Your task to perform on an android device: Open location settings Image 0: 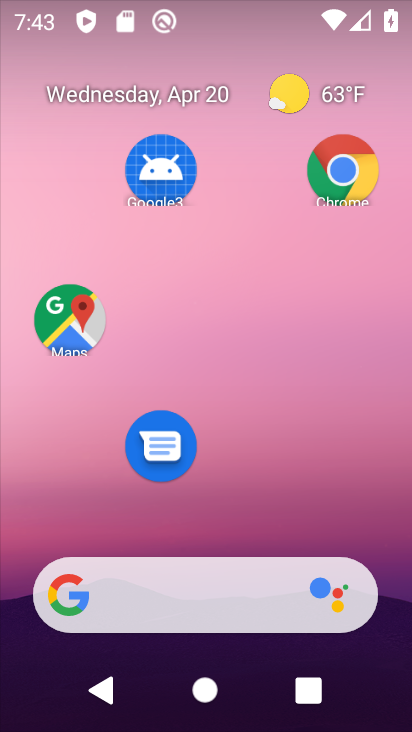
Step 0: drag from (238, 518) to (229, 5)
Your task to perform on an android device: Open location settings Image 1: 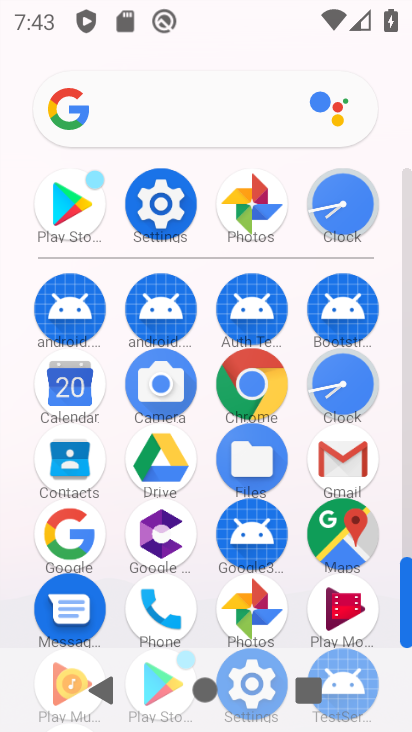
Step 1: click (156, 207)
Your task to perform on an android device: Open location settings Image 2: 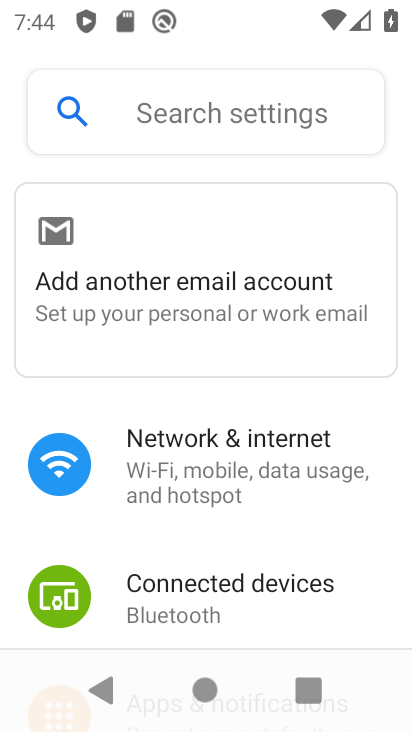
Step 2: drag from (161, 560) to (106, 255)
Your task to perform on an android device: Open location settings Image 3: 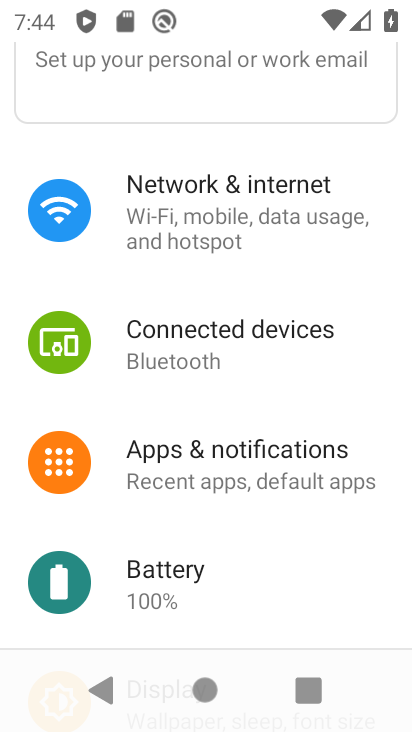
Step 3: drag from (237, 554) to (217, 151)
Your task to perform on an android device: Open location settings Image 4: 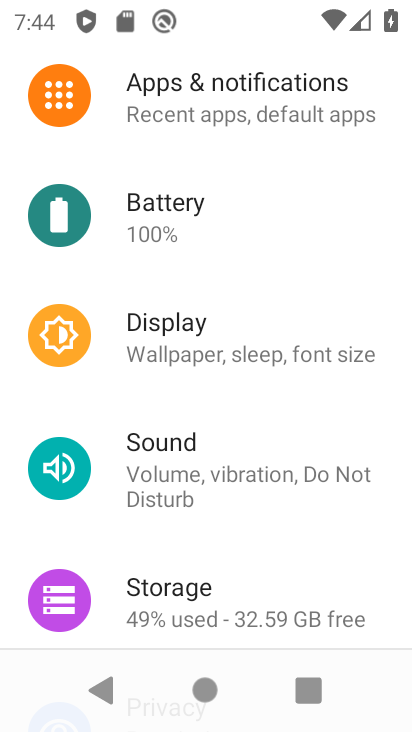
Step 4: drag from (255, 562) to (231, 109)
Your task to perform on an android device: Open location settings Image 5: 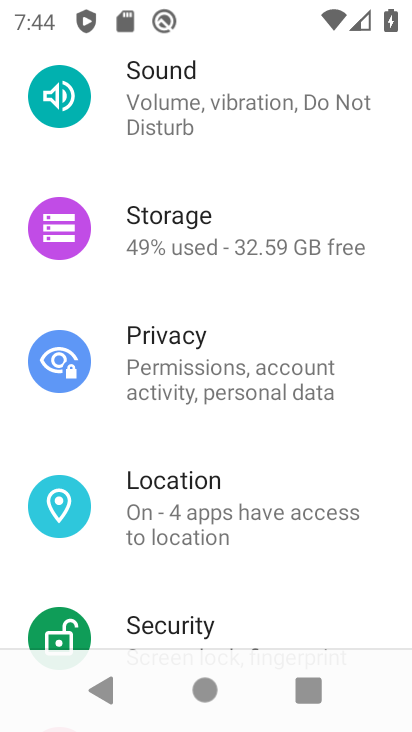
Step 5: click (177, 490)
Your task to perform on an android device: Open location settings Image 6: 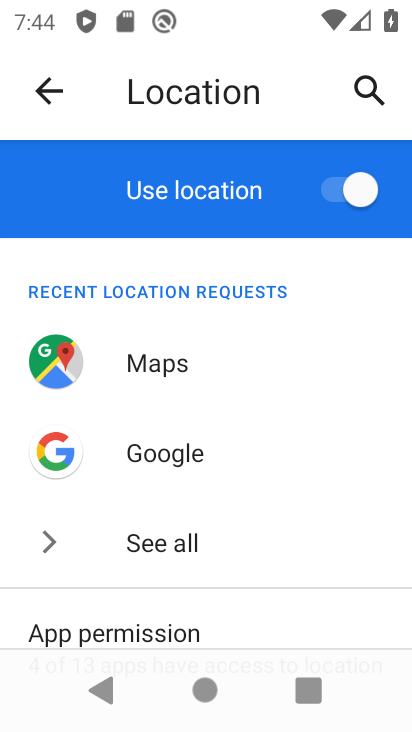
Step 6: task complete